Your task to perform on an android device: manage bookmarks in the chrome app Image 0: 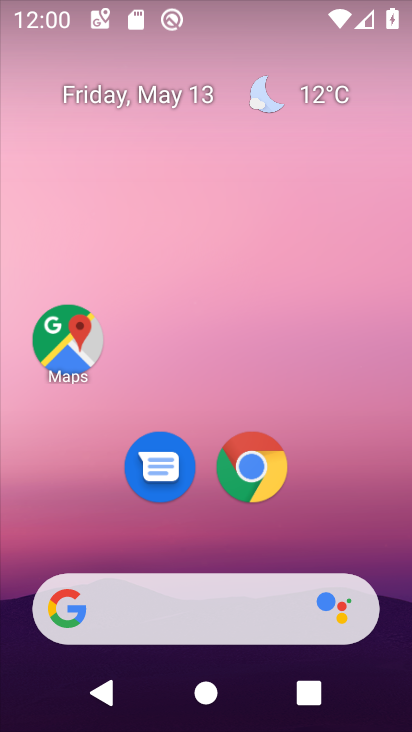
Step 0: click (271, 471)
Your task to perform on an android device: manage bookmarks in the chrome app Image 1: 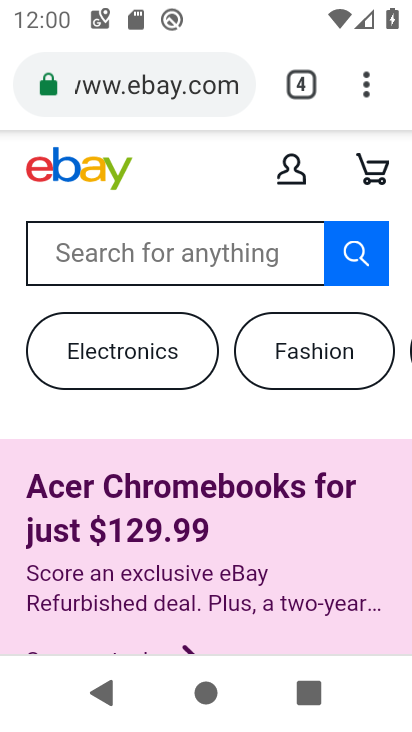
Step 1: click (364, 72)
Your task to perform on an android device: manage bookmarks in the chrome app Image 2: 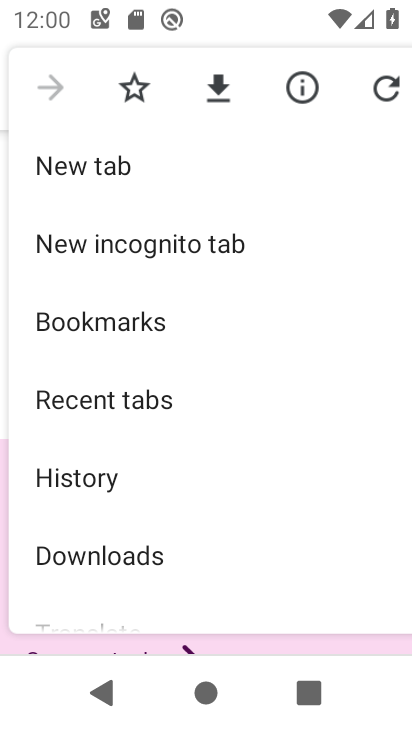
Step 2: click (177, 319)
Your task to perform on an android device: manage bookmarks in the chrome app Image 3: 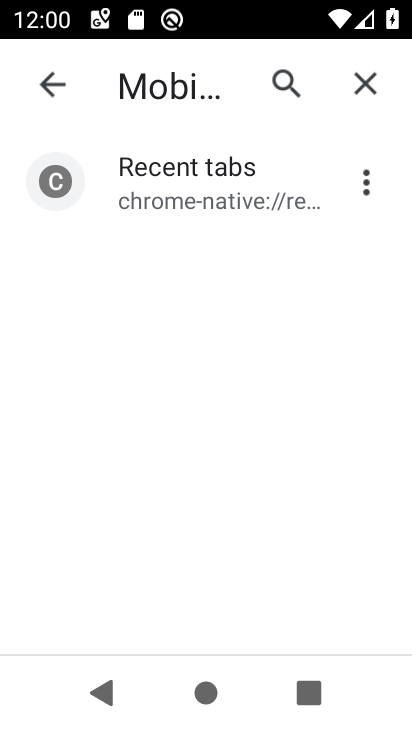
Step 3: click (374, 197)
Your task to perform on an android device: manage bookmarks in the chrome app Image 4: 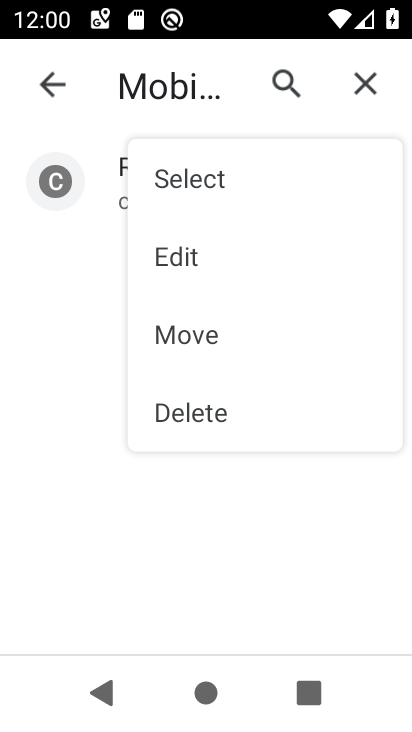
Step 4: click (184, 179)
Your task to perform on an android device: manage bookmarks in the chrome app Image 5: 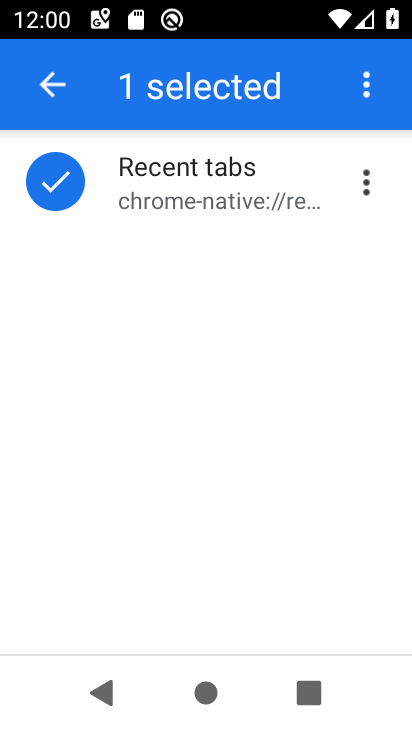
Step 5: task complete